Your task to perform on an android device: check out phone information Image 0: 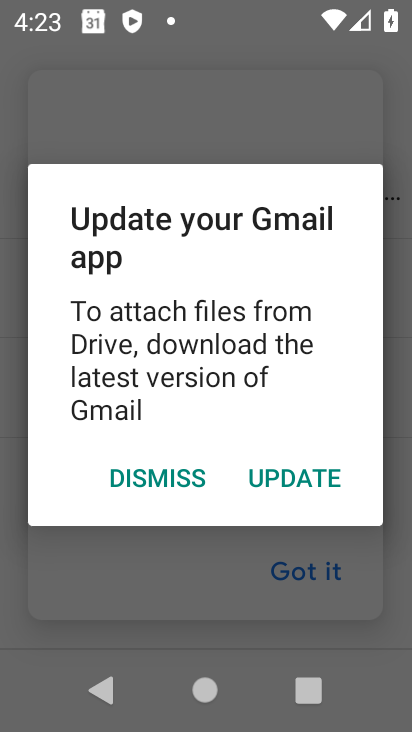
Step 0: press home button
Your task to perform on an android device: check out phone information Image 1: 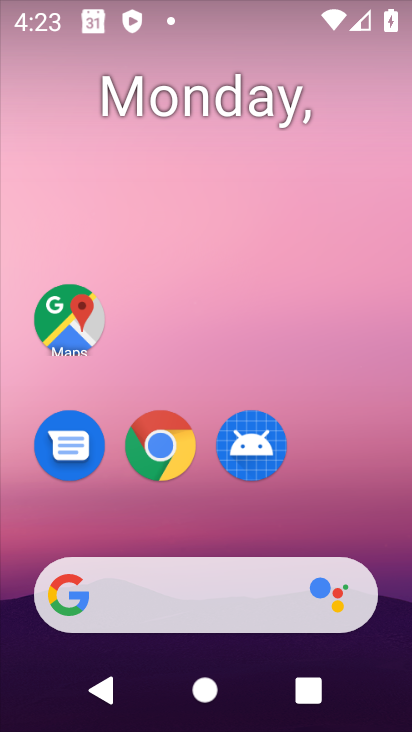
Step 1: drag from (308, 512) to (253, 169)
Your task to perform on an android device: check out phone information Image 2: 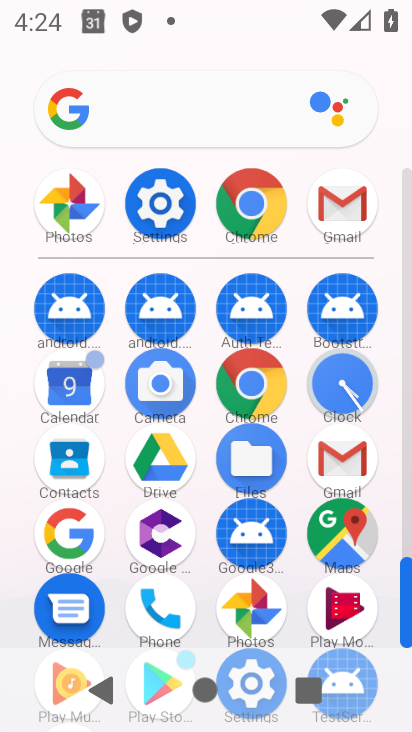
Step 2: drag from (293, 644) to (268, 350)
Your task to perform on an android device: check out phone information Image 3: 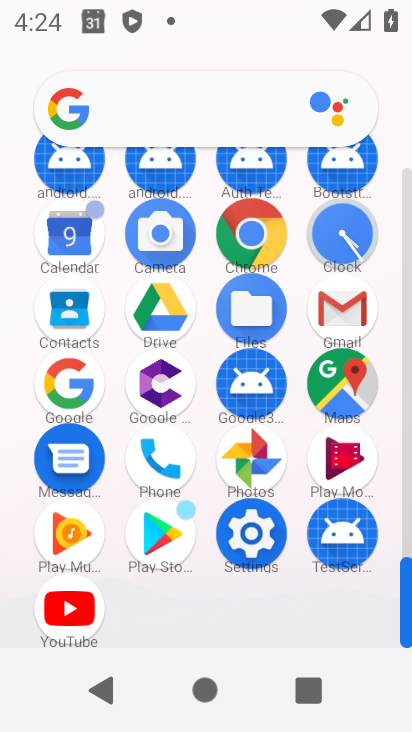
Step 3: click (163, 466)
Your task to perform on an android device: check out phone information Image 4: 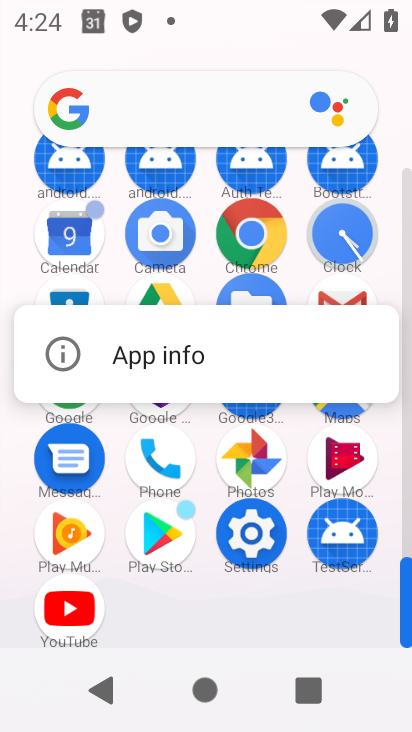
Step 4: click (189, 378)
Your task to perform on an android device: check out phone information Image 5: 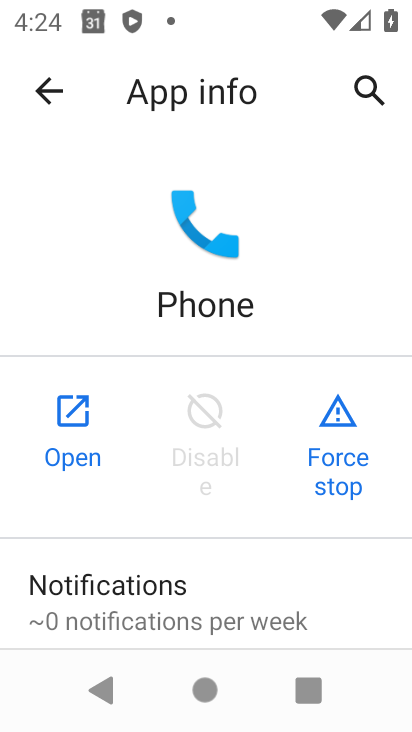
Step 5: task complete